Your task to perform on an android device: Open wifi settings Image 0: 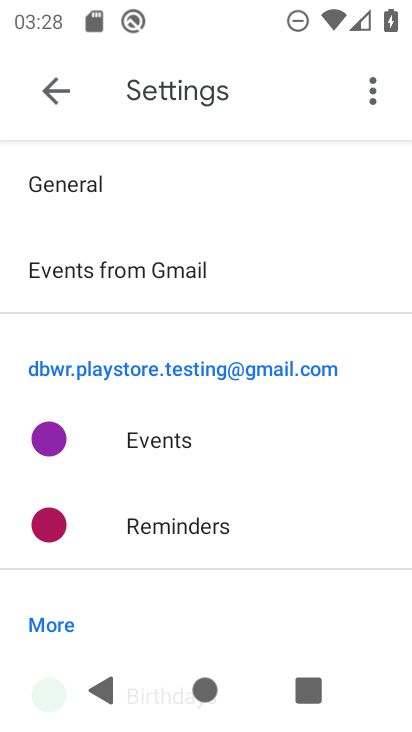
Step 0: press home button
Your task to perform on an android device: Open wifi settings Image 1: 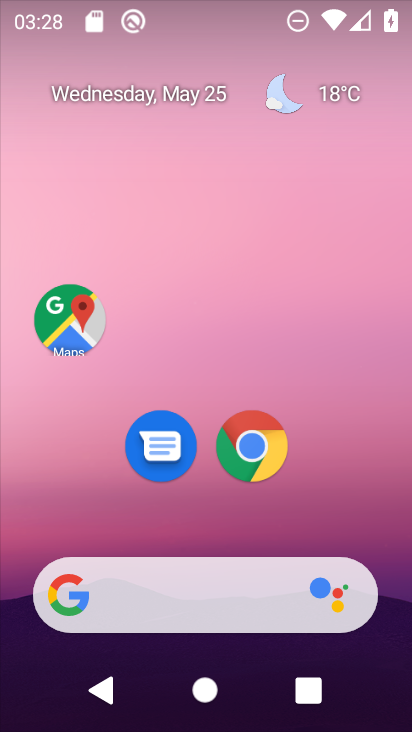
Step 1: drag from (199, 580) to (214, 99)
Your task to perform on an android device: Open wifi settings Image 2: 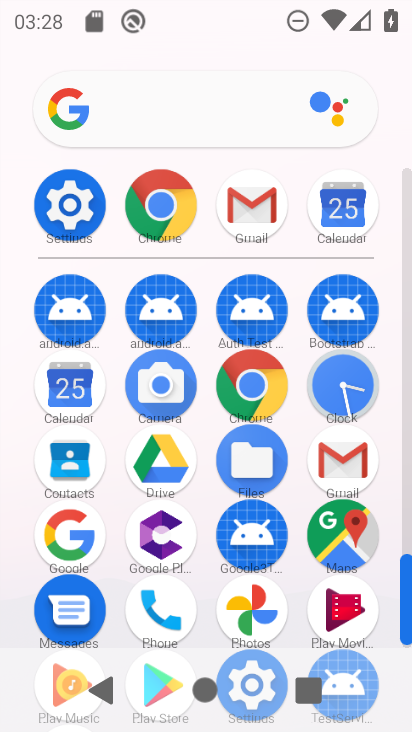
Step 2: click (65, 197)
Your task to perform on an android device: Open wifi settings Image 3: 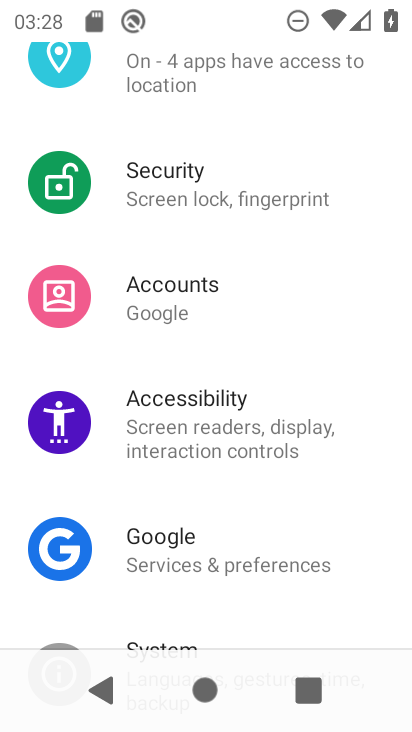
Step 3: drag from (177, 154) to (198, 666)
Your task to perform on an android device: Open wifi settings Image 4: 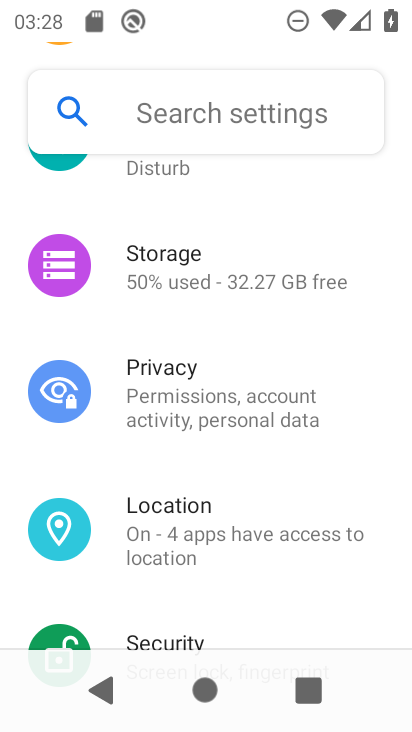
Step 4: drag from (113, 189) to (141, 535)
Your task to perform on an android device: Open wifi settings Image 5: 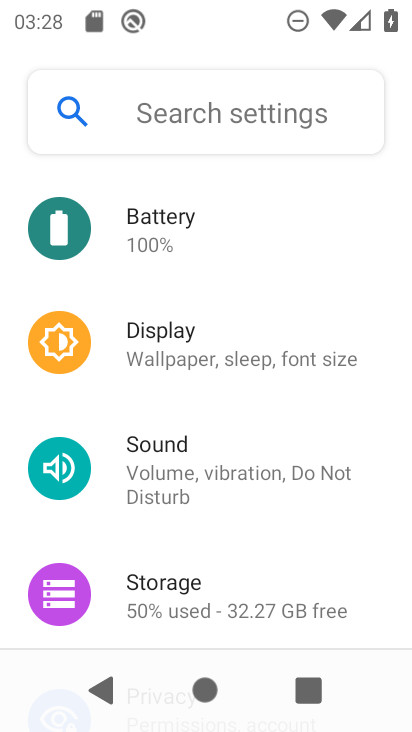
Step 5: drag from (162, 268) to (244, 699)
Your task to perform on an android device: Open wifi settings Image 6: 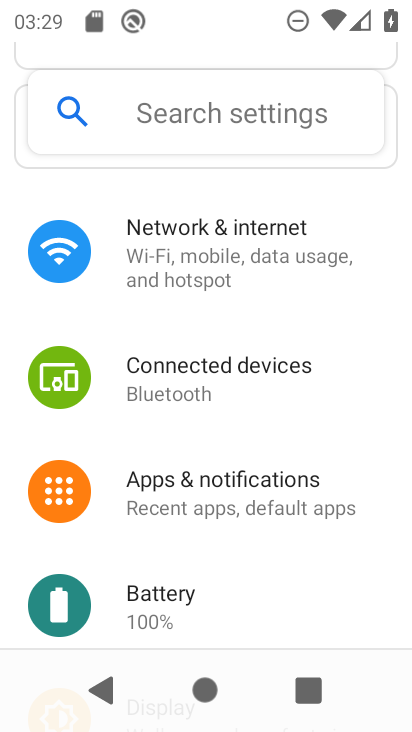
Step 6: click (181, 267)
Your task to perform on an android device: Open wifi settings Image 7: 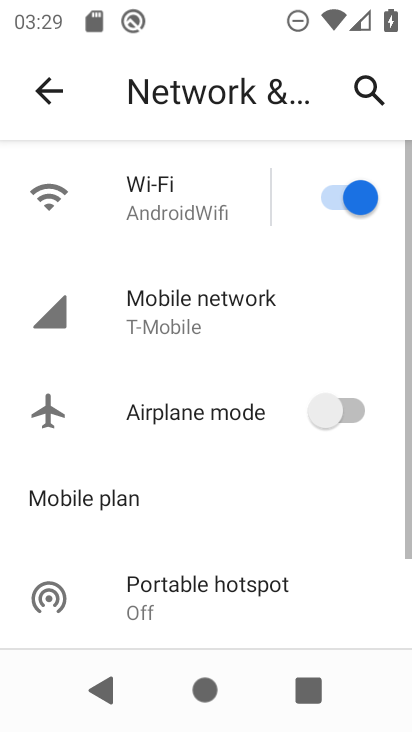
Step 7: click (172, 215)
Your task to perform on an android device: Open wifi settings Image 8: 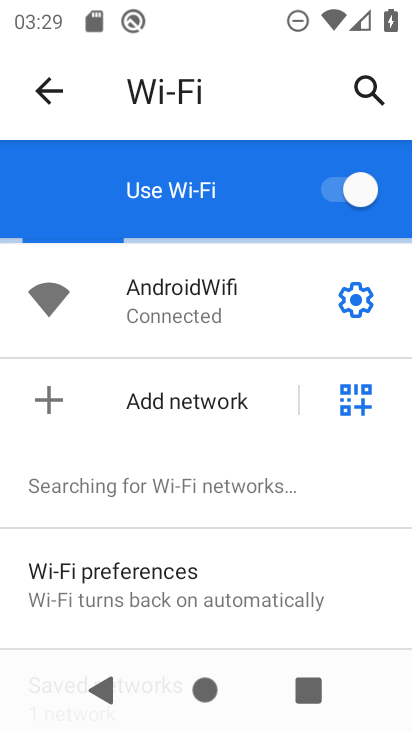
Step 8: task complete